Your task to perform on an android device: open wifi settings Image 0: 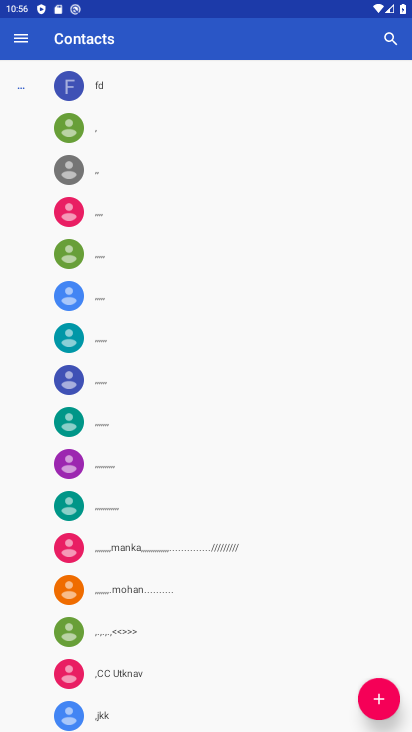
Step 0: press back button
Your task to perform on an android device: open wifi settings Image 1: 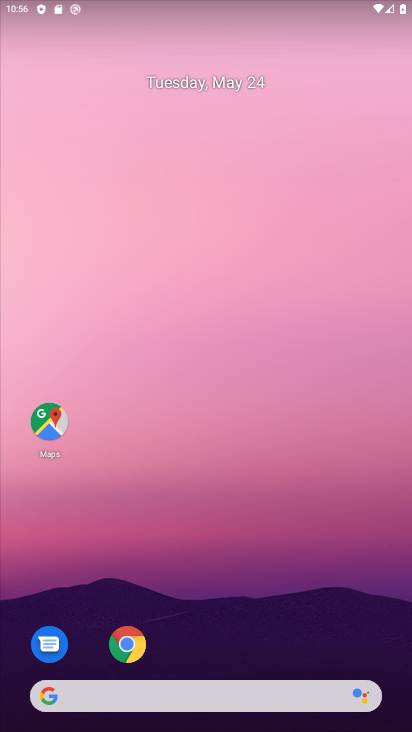
Step 1: drag from (247, 609) to (208, 59)
Your task to perform on an android device: open wifi settings Image 2: 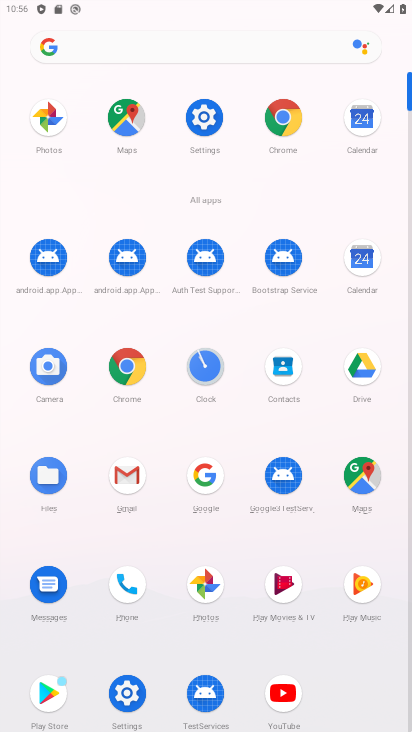
Step 2: click (201, 116)
Your task to perform on an android device: open wifi settings Image 3: 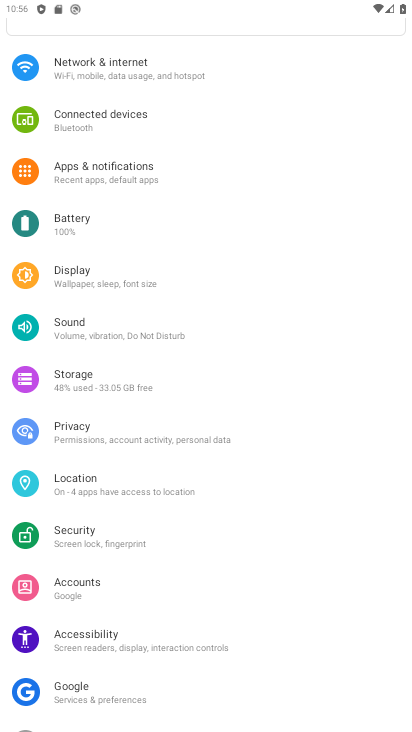
Step 3: click (116, 69)
Your task to perform on an android device: open wifi settings Image 4: 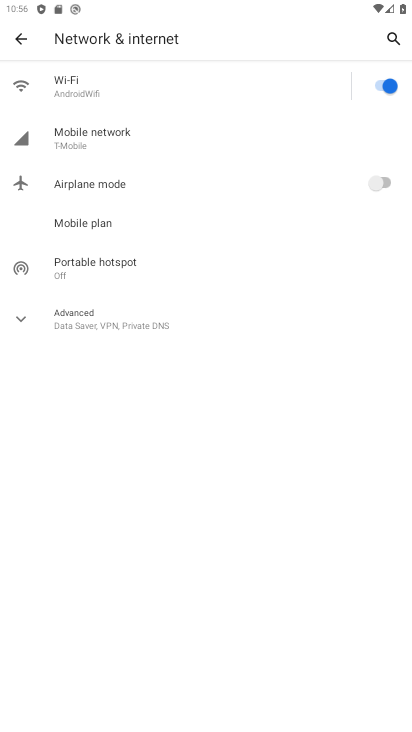
Step 4: click (73, 97)
Your task to perform on an android device: open wifi settings Image 5: 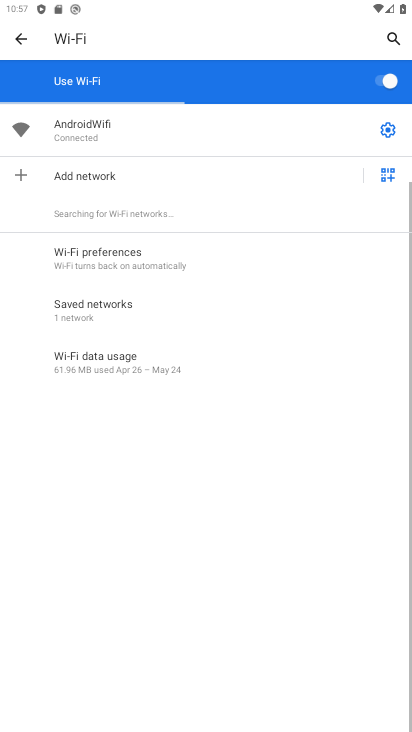
Step 5: click (385, 127)
Your task to perform on an android device: open wifi settings Image 6: 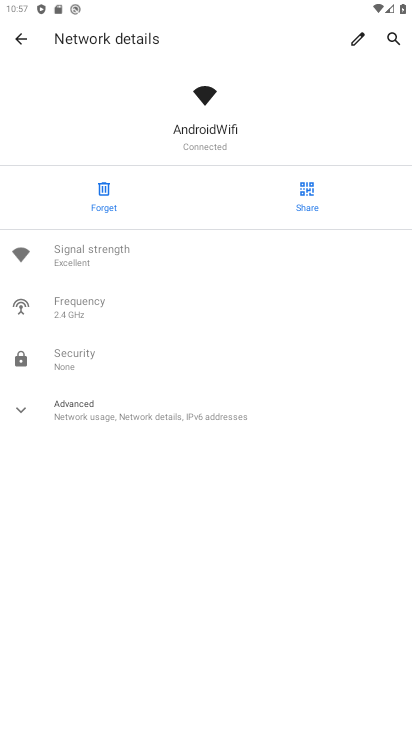
Step 6: task complete